Your task to perform on an android device: empty trash in google photos Image 0: 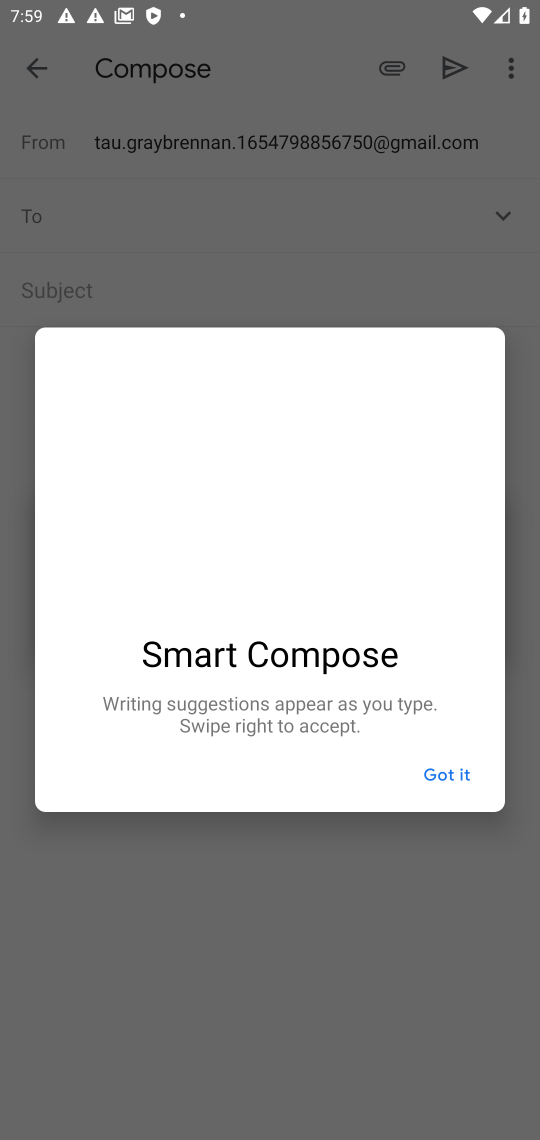
Step 0: press home button
Your task to perform on an android device: empty trash in google photos Image 1: 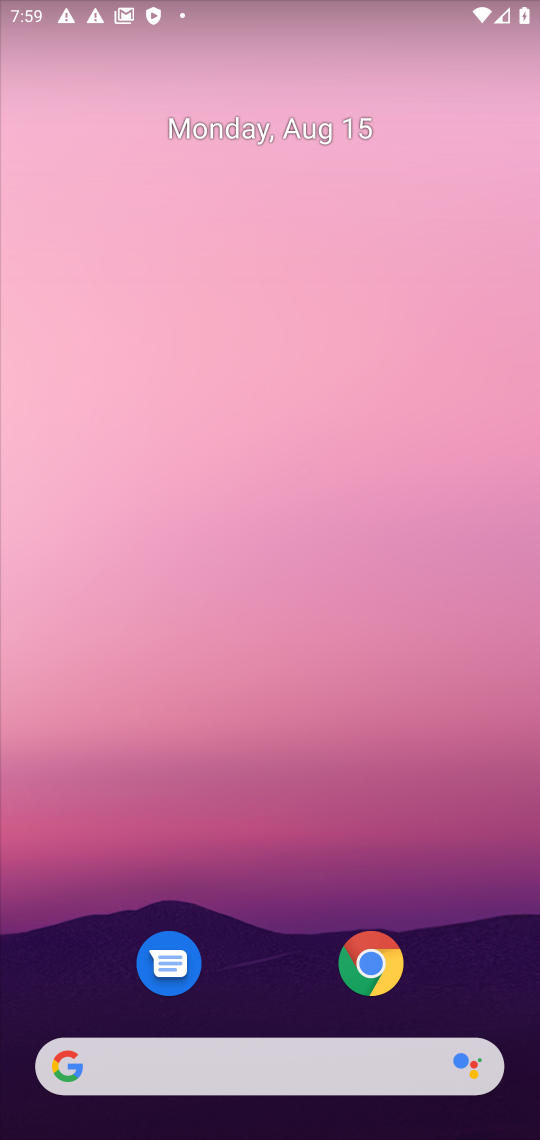
Step 1: drag from (299, 840) to (244, 266)
Your task to perform on an android device: empty trash in google photos Image 2: 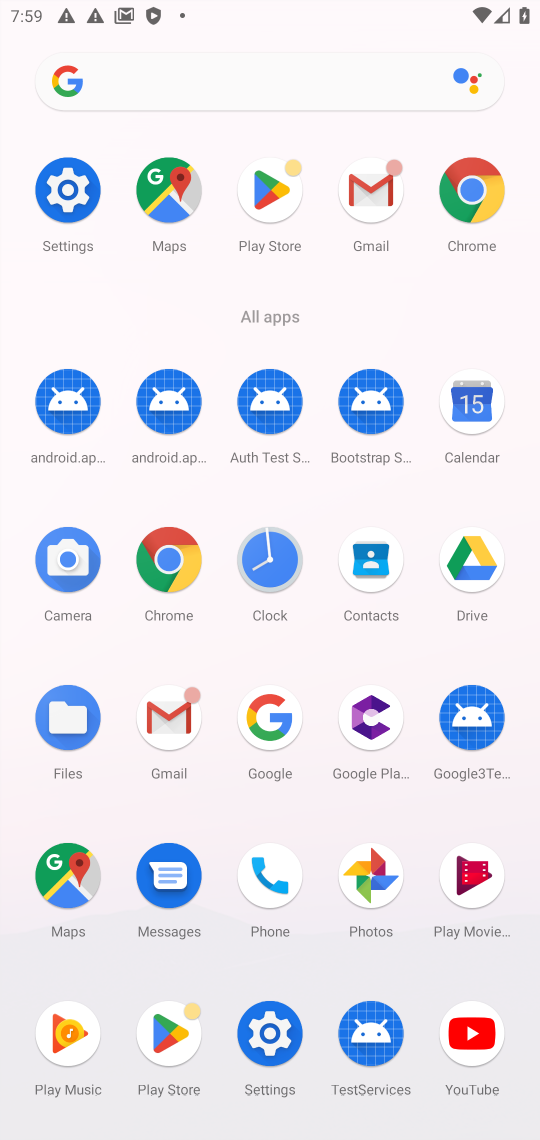
Step 2: click (391, 868)
Your task to perform on an android device: empty trash in google photos Image 3: 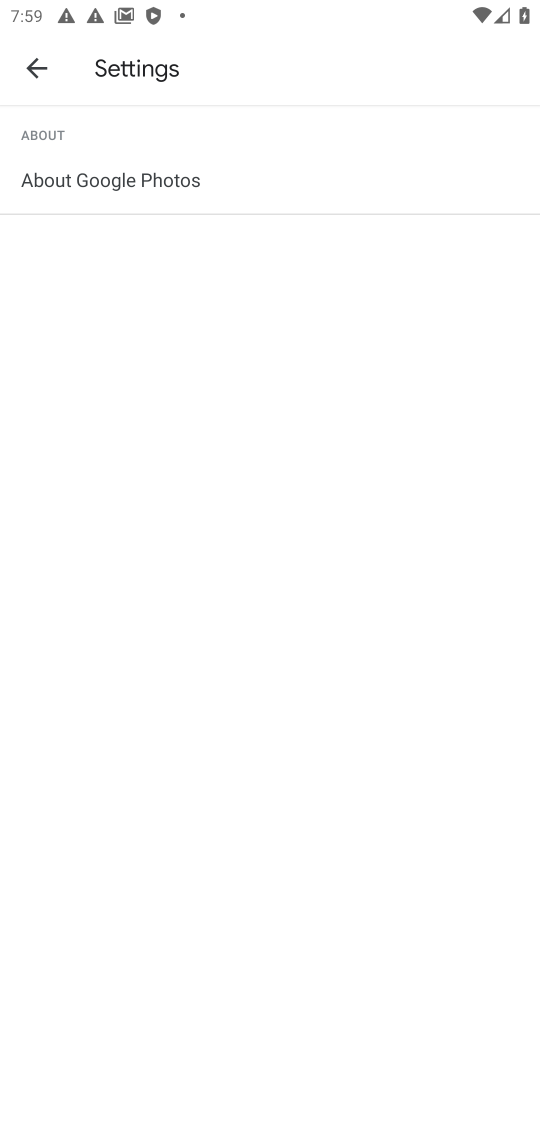
Step 3: click (25, 56)
Your task to perform on an android device: empty trash in google photos Image 4: 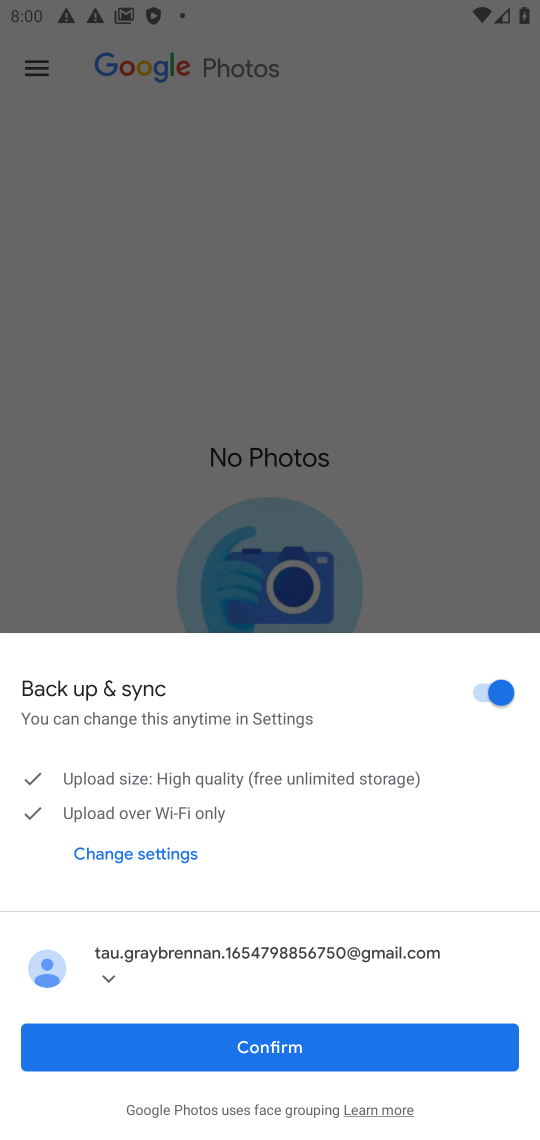
Step 4: click (169, 283)
Your task to perform on an android device: empty trash in google photos Image 5: 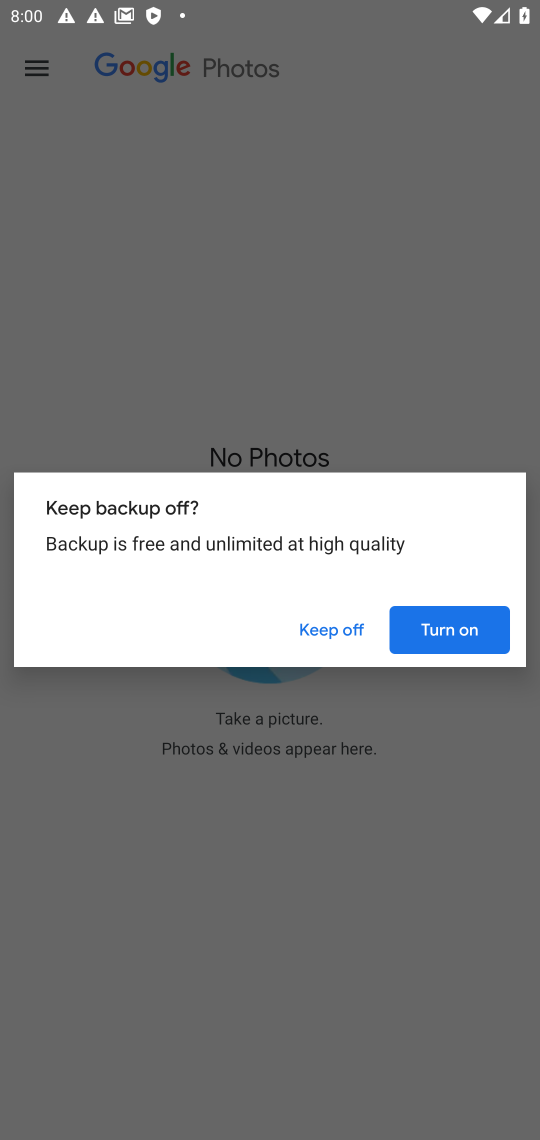
Step 5: click (455, 632)
Your task to perform on an android device: empty trash in google photos Image 6: 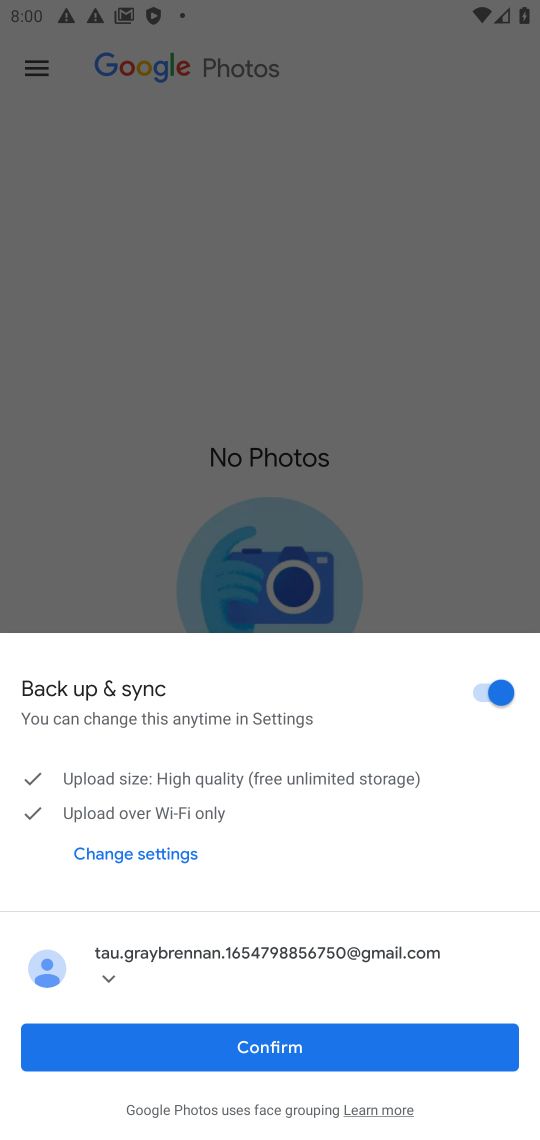
Step 6: click (218, 1061)
Your task to perform on an android device: empty trash in google photos Image 7: 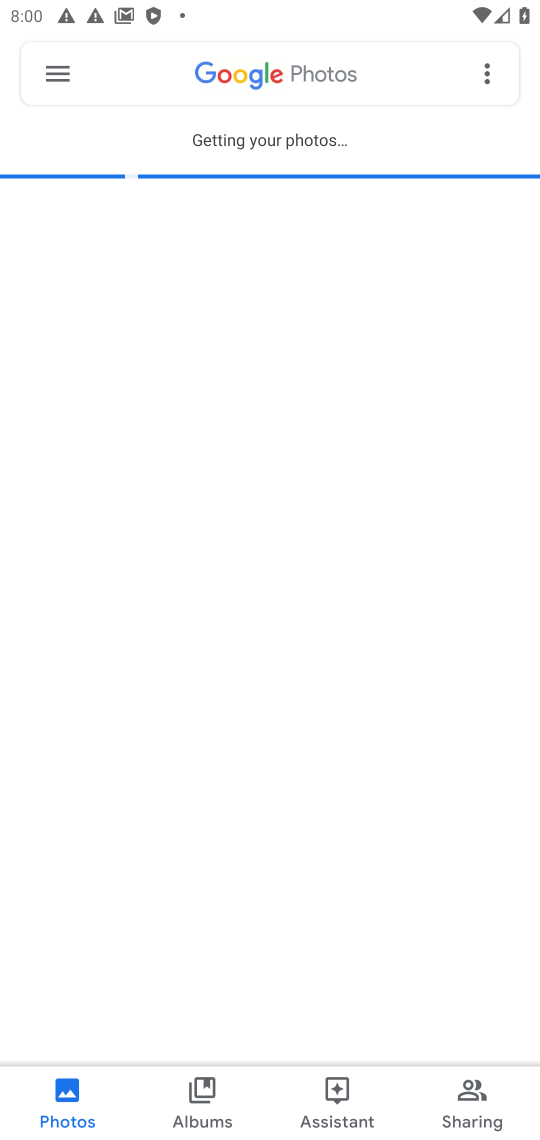
Step 7: click (43, 75)
Your task to perform on an android device: empty trash in google photos Image 8: 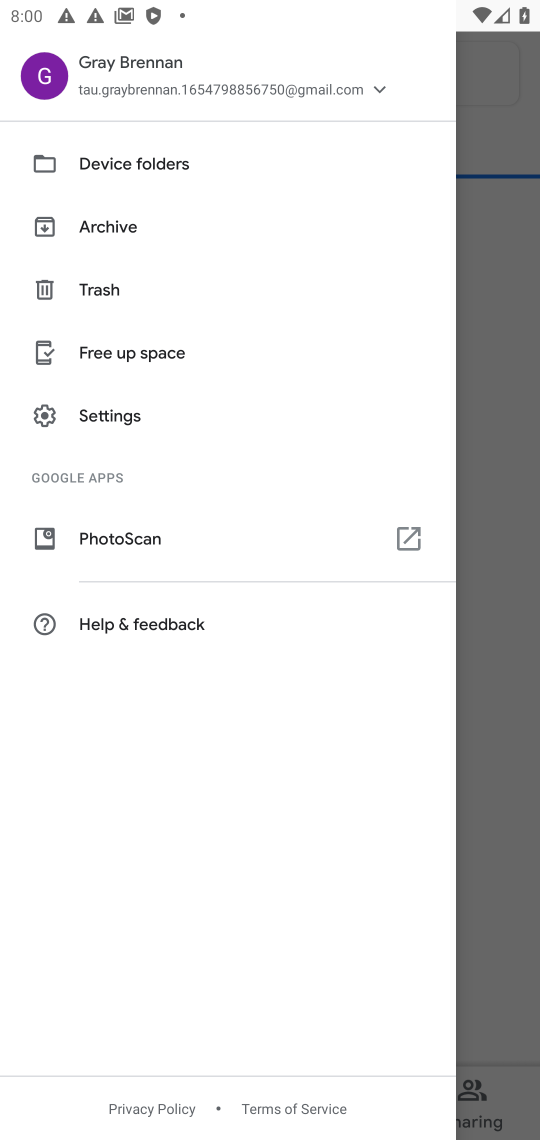
Step 8: click (157, 296)
Your task to perform on an android device: empty trash in google photos Image 9: 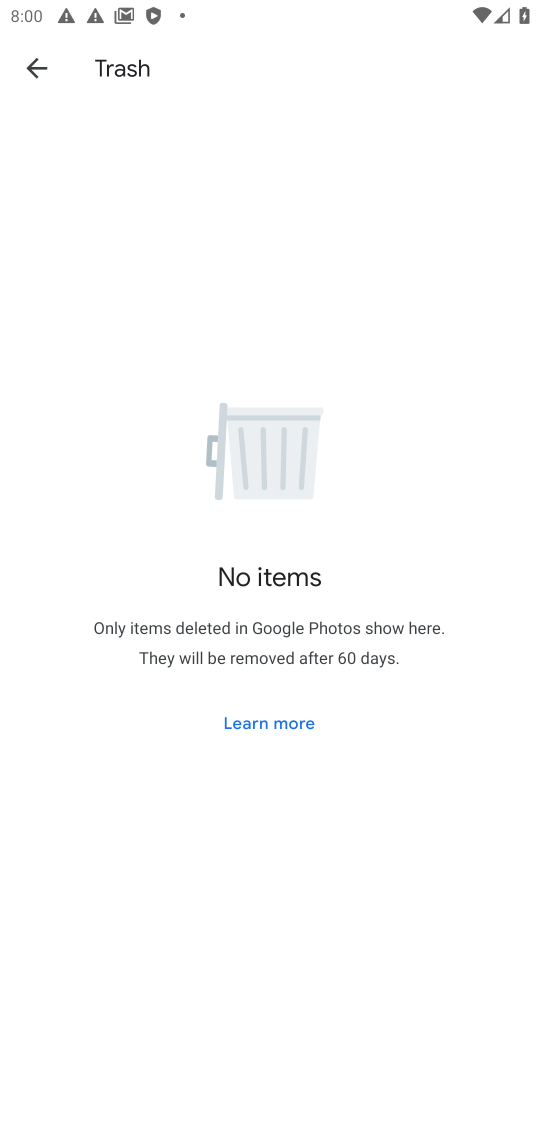
Step 9: task complete